Your task to perform on an android device: open sync settings in chrome Image 0: 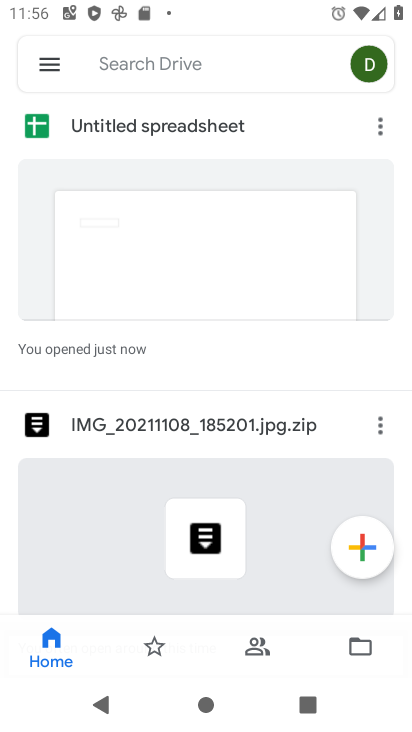
Step 0: press home button
Your task to perform on an android device: open sync settings in chrome Image 1: 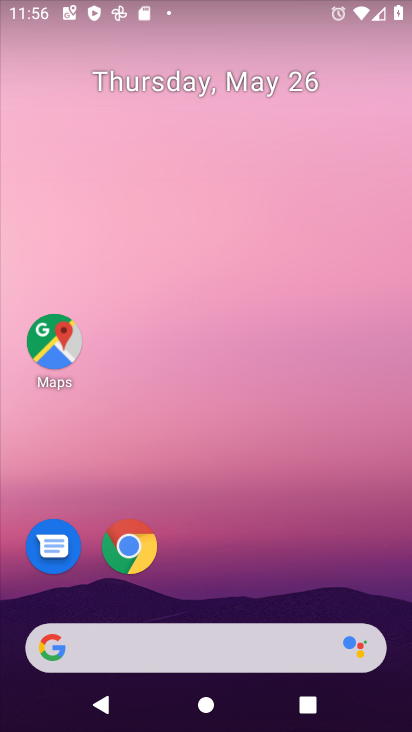
Step 1: click (134, 546)
Your task to perform on an android device: open sync settings in chrome Image 2: 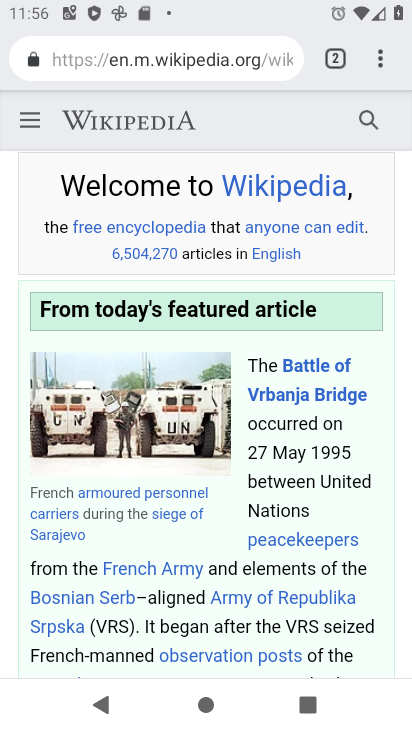
Step 2: click (370, 62)
Your task to perform on an android device: open sync settings in chrome Image 3: 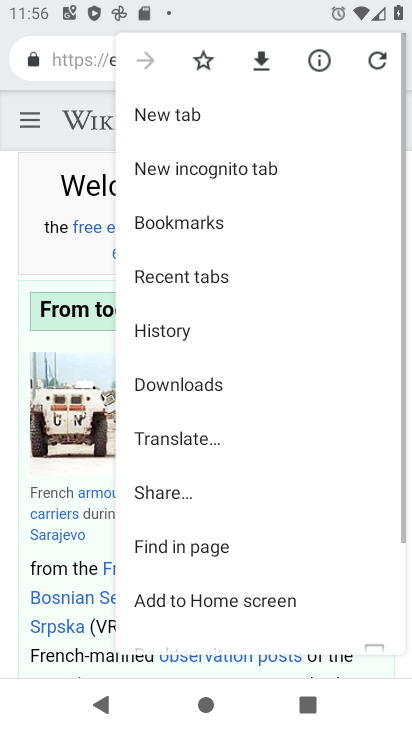
Step 3: drag from (192, 637) to (237, 188)
Your task to perform on an android device: open sync settings in chrome Image 4: 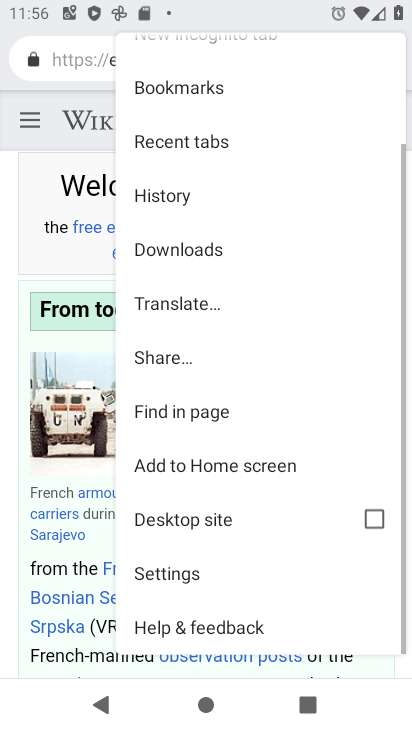
Step 4: click (165, 579)
Your task to perform on an android device: open sync settings in chrome Image 5: 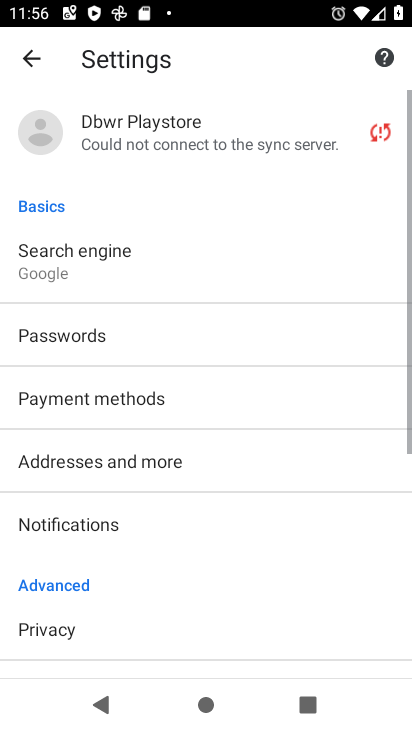
Step 5: drag from (99, 587) to (92, 140)
Your task to perform on an android device: open sync settings in chrome Image 6: 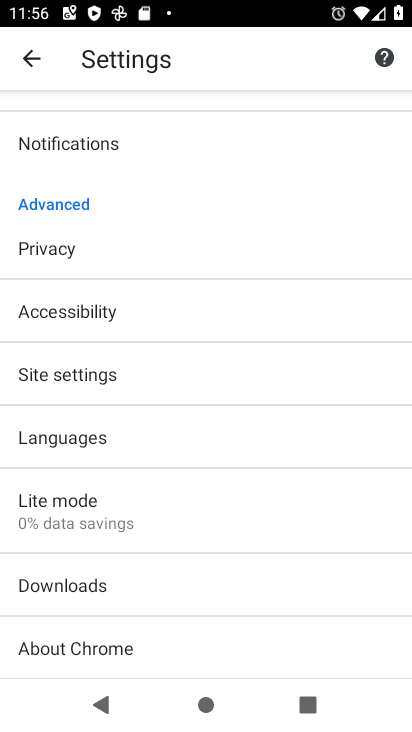
Step 6: click (80, 373)
Your task to perform on an android device: open sync settings in chrome Image 7: 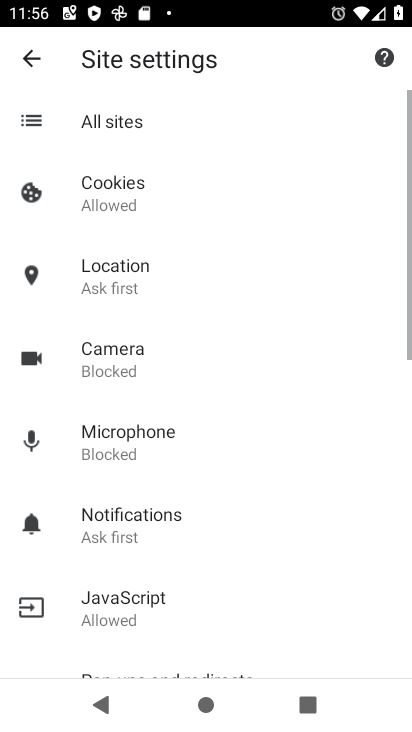
Step 7: drag from (235, 613) to (202, 239)
Your task to perform on an android device: open sync settings in chrome Image 8: 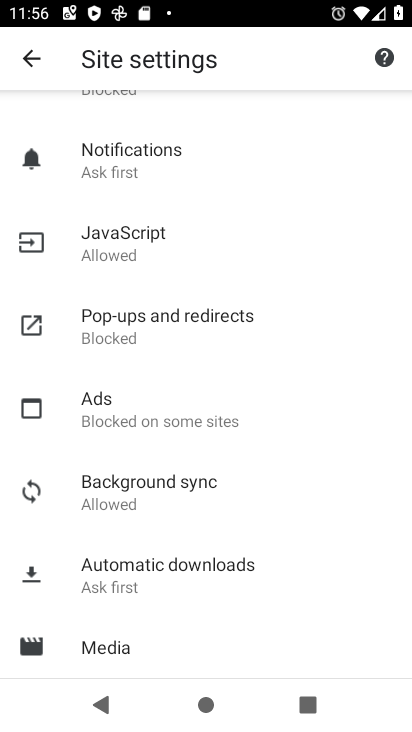
Step 8: click (166, 485)
Your task to perform on an android device: open sync settings in chrome Image 9: 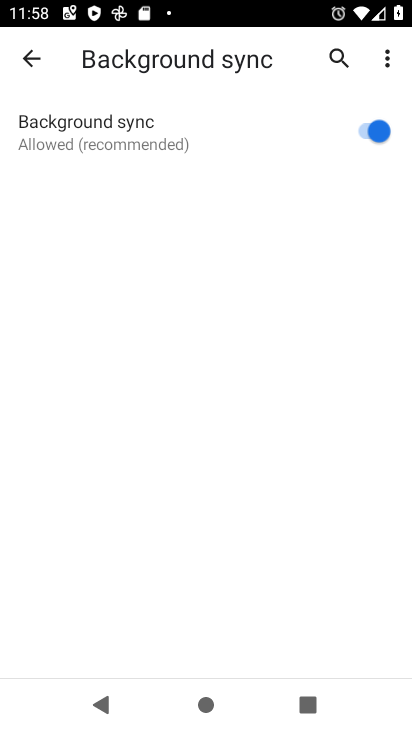
Step 9: task complete